Your task to perform on an android device: star an email in the gmail app Image 0: 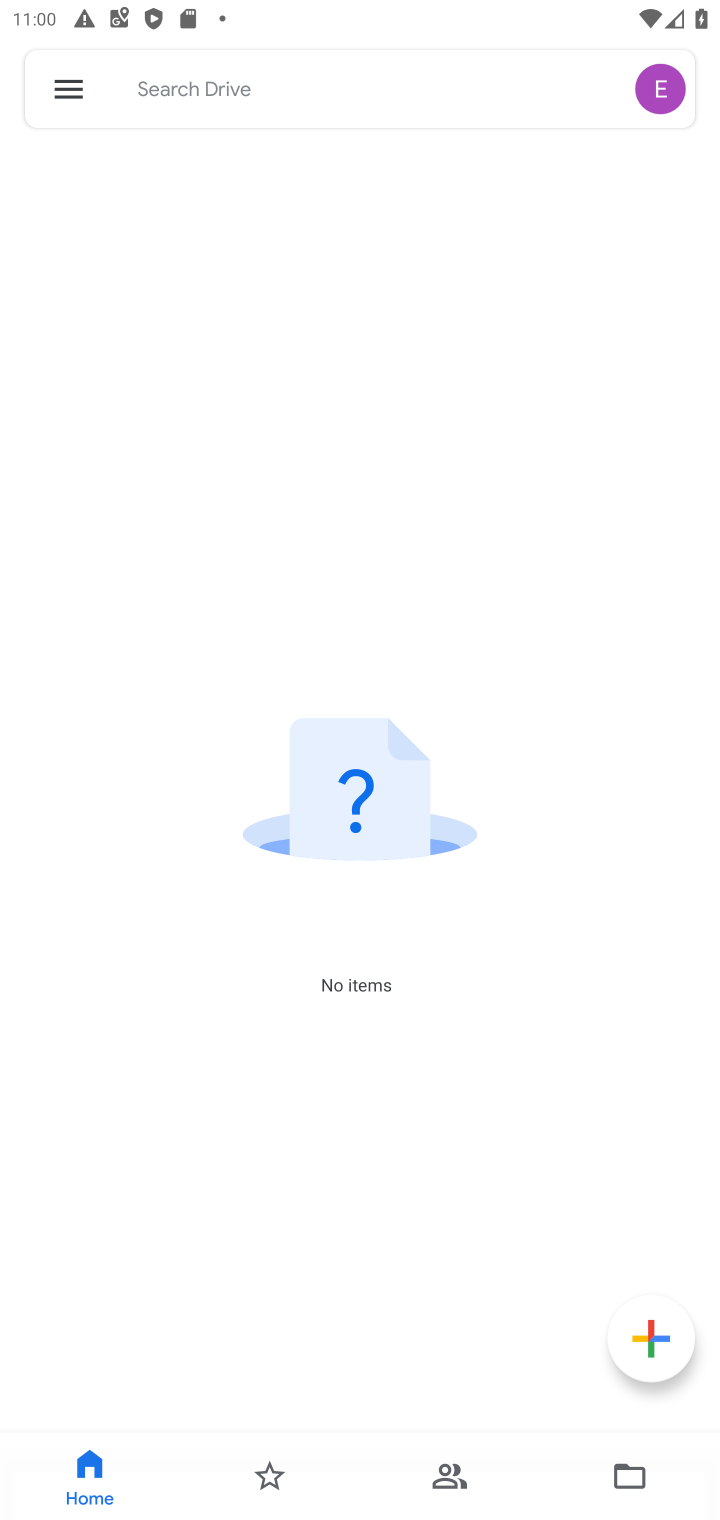
Step 0: press back button
Your task to perform on an android device: star an email in the gmail app Image 1: 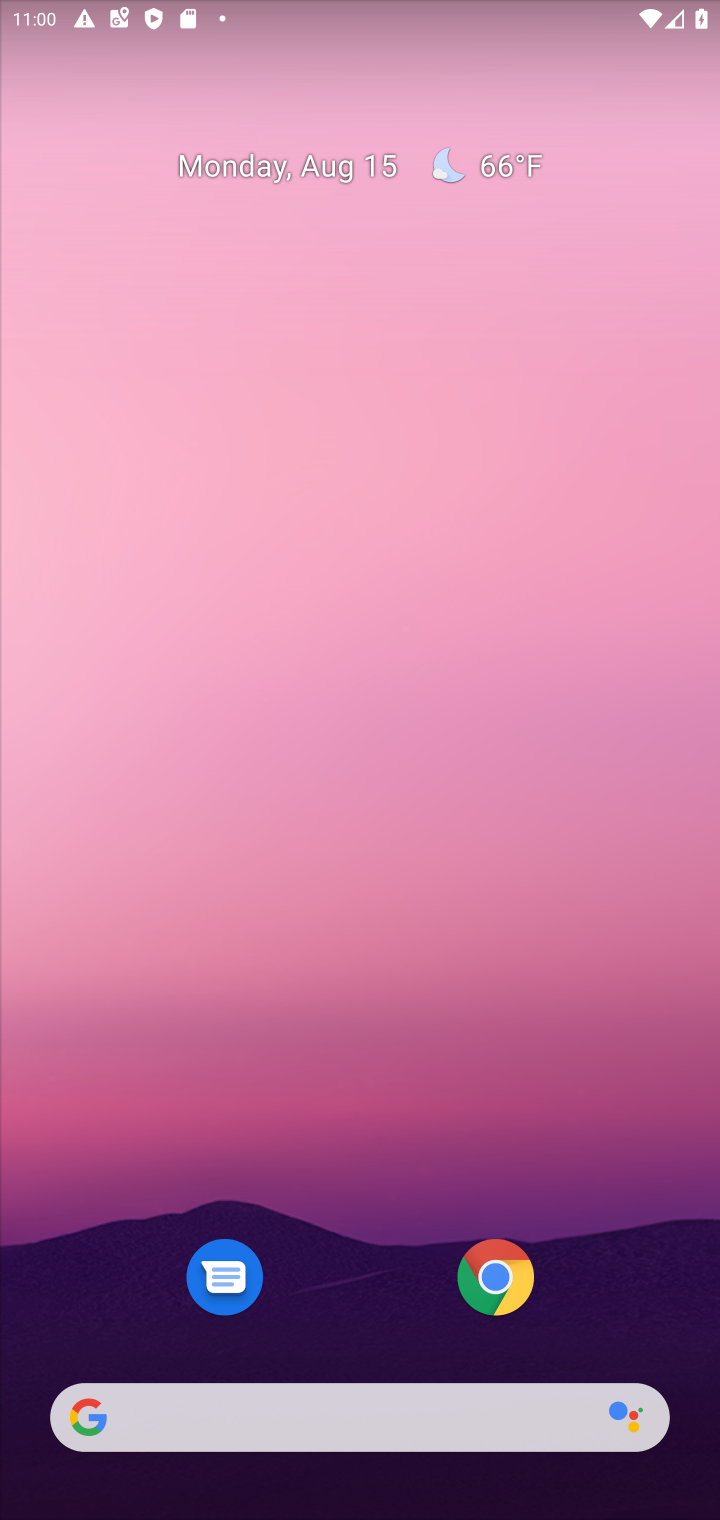
Step 1: drag from (373, 1401) to (449, 485)
Your task to perform on an android device: star an email in the gmail app Image 2: 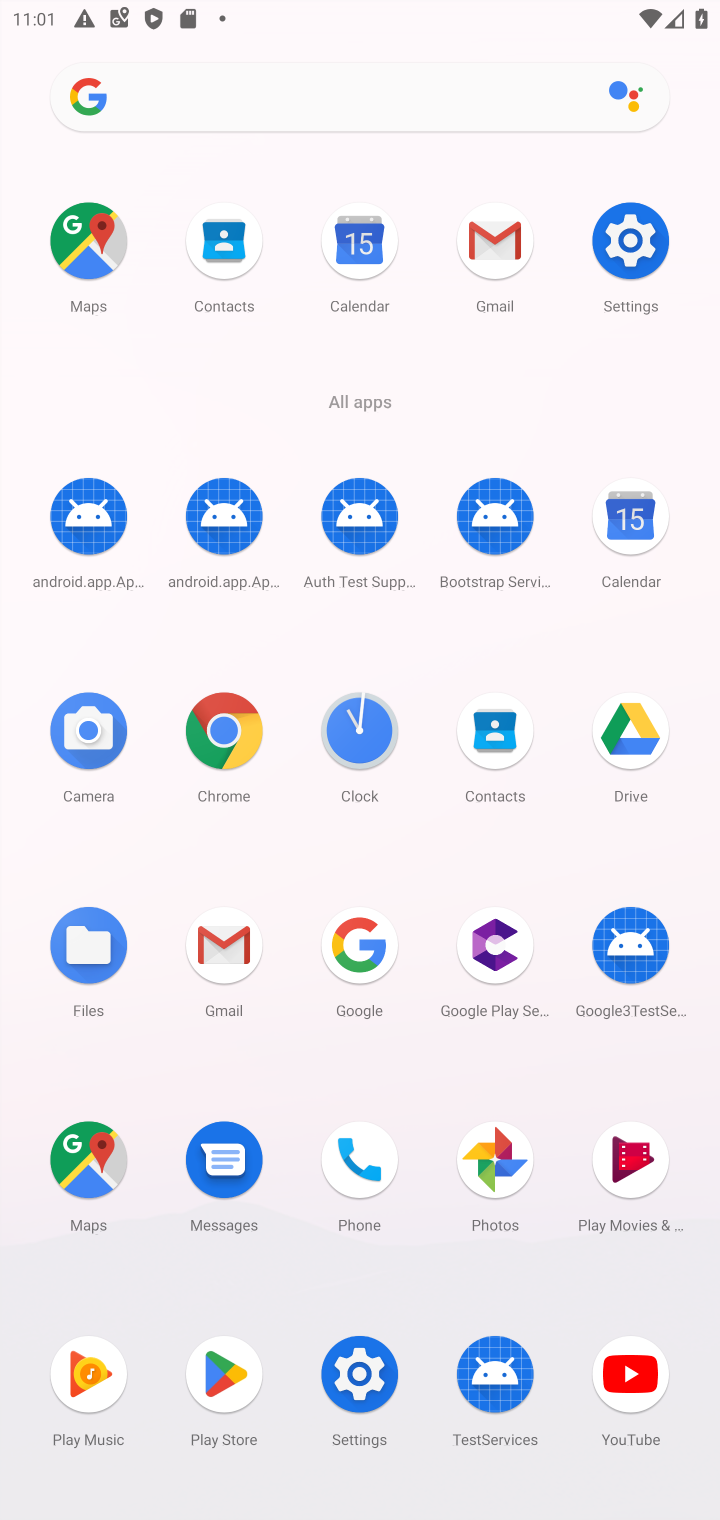
Step 2: click (203, 949)
Your task to perform on an android device: star an email in the gmail app Image 3: 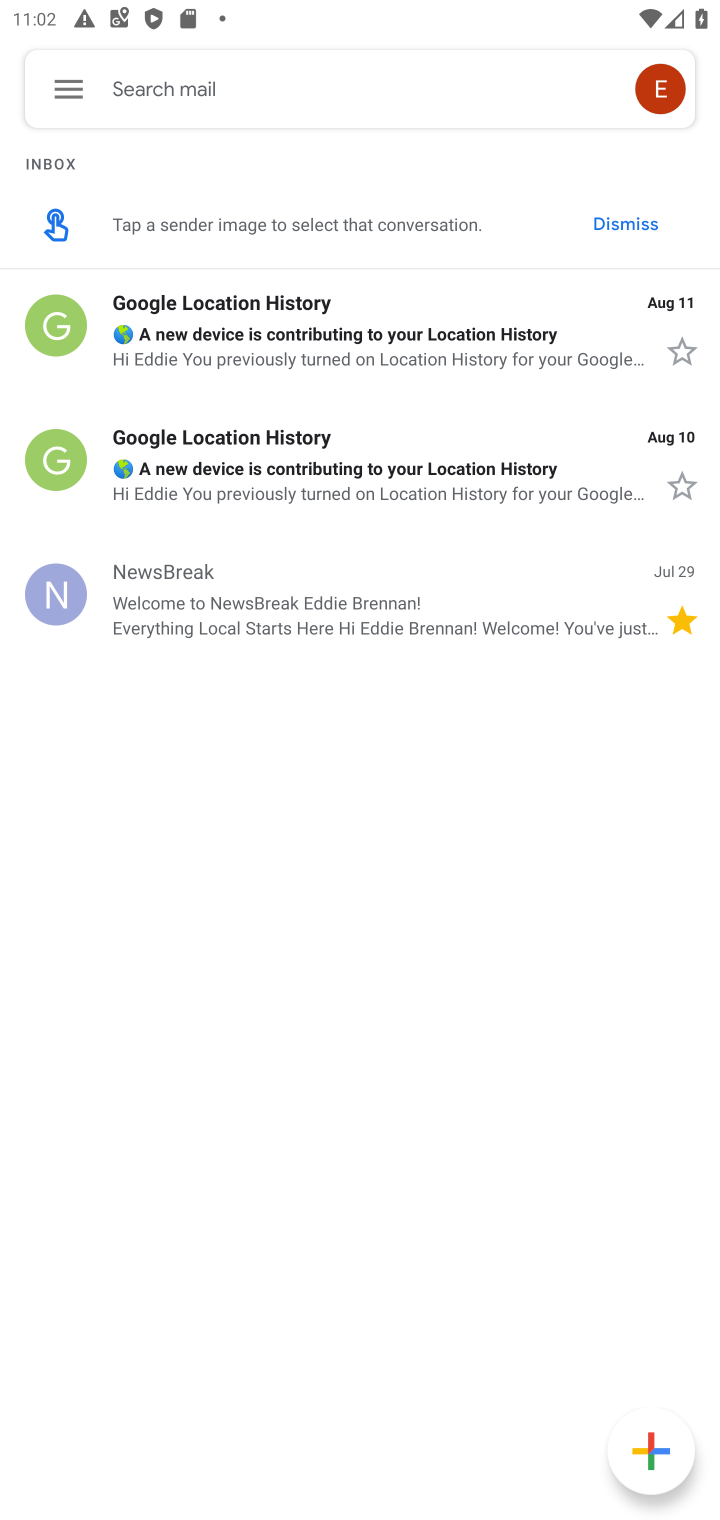
Step 3: click (684, 348)
Your task to perform on an android device: star an email in the gmail app Image 4: 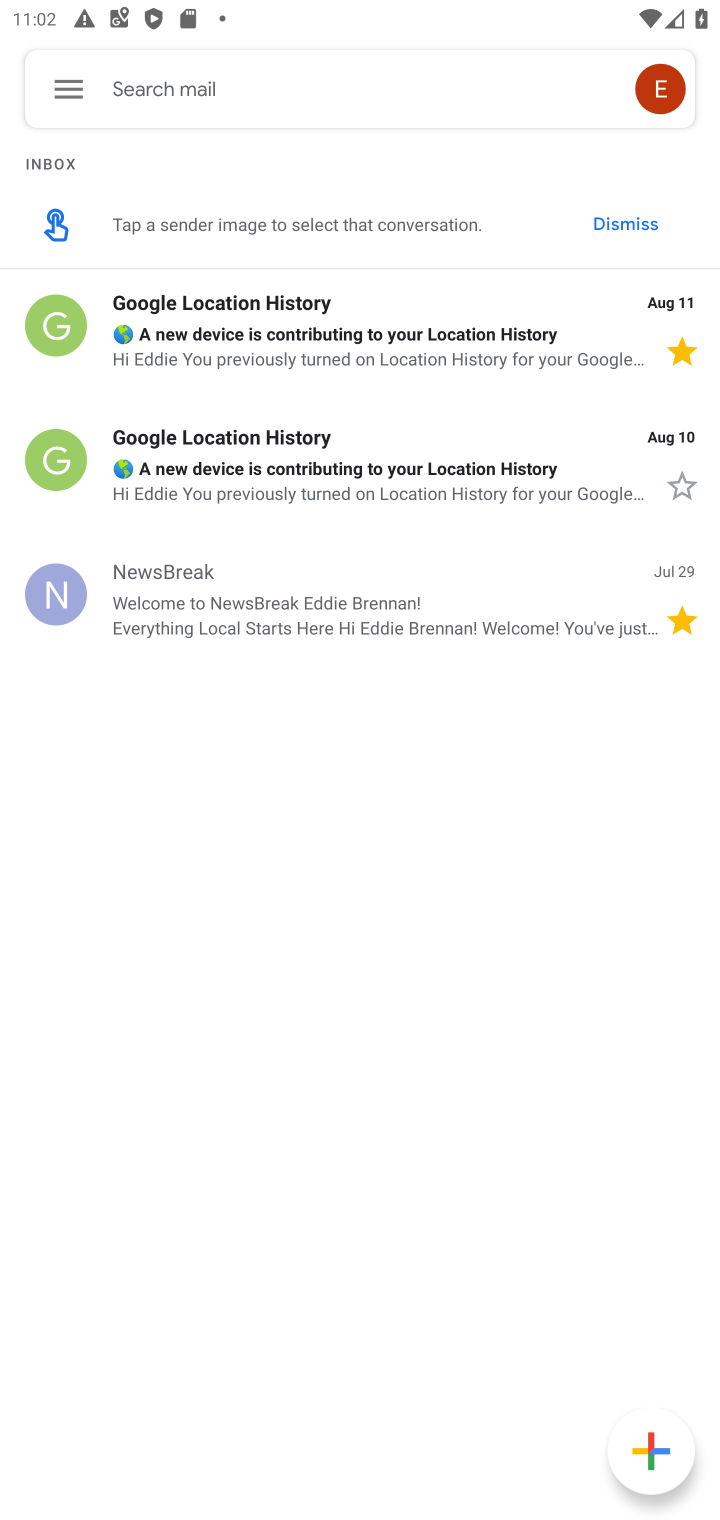
Step 4: task complete